Your task to perform on an android device: Open CNN.com Image 0: 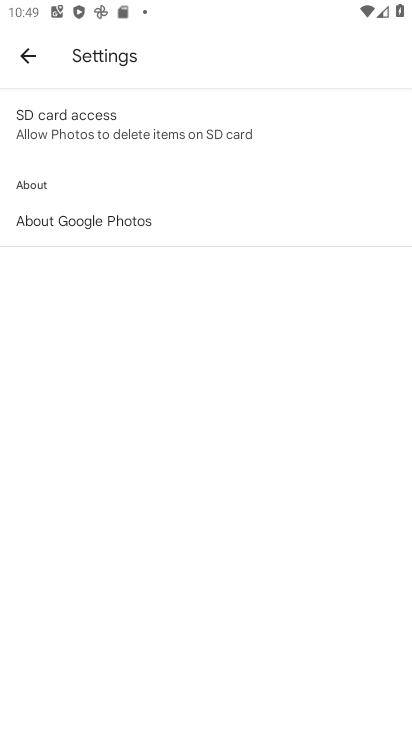
Step 0: press home button
Your task to perform on an android device: Open CNN.com Image 1: 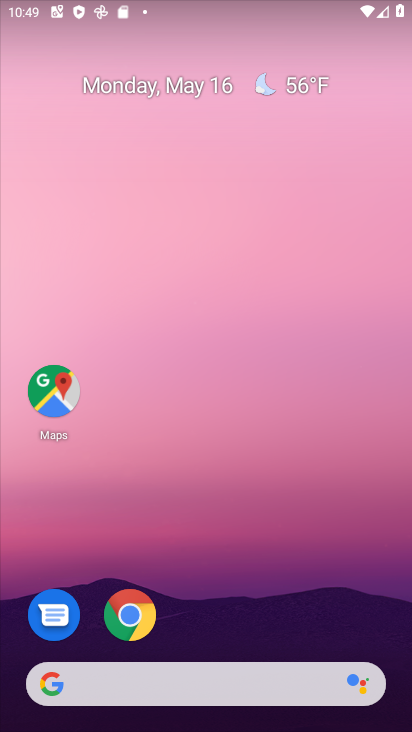
Step 1: drag from (235, 709) to (221, 339)
Your task to perform on an android device: Open CNN.com Image 2: 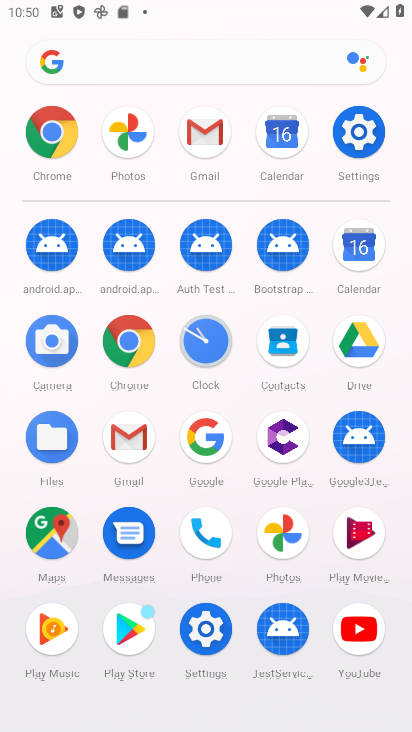
Step 2: click (68, 112)
Your task to perform on an android device: Open CNN.com Image 3: 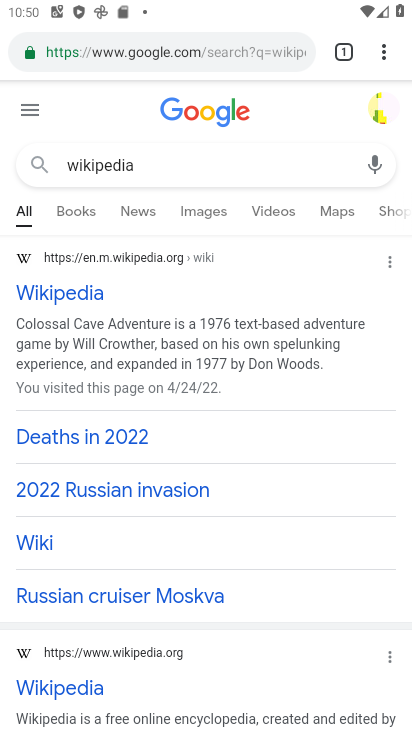
Step 3: click (220, 56)
Your task to perform on an android device: Open CNN.com Image 4: 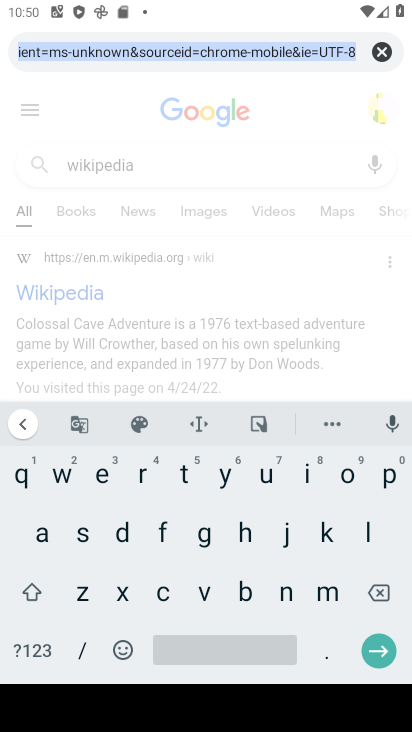
Step 4: click (382, 47)
Your task to perform on an android device: Open CNN.com Image 5: 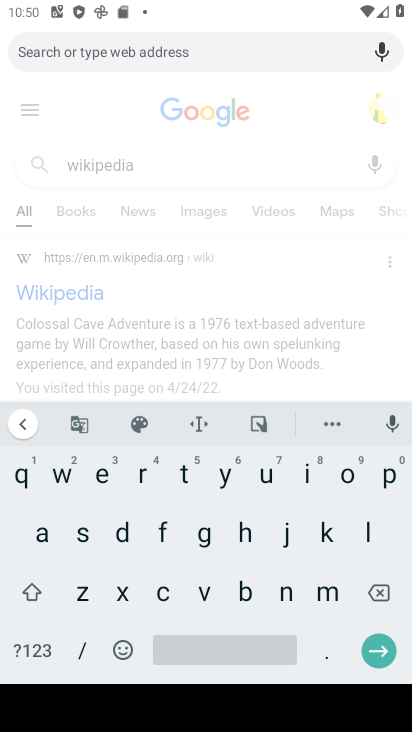
Step 5: click (161, 589)
Your task to perform on an android device: Open CNN.com Image 6: 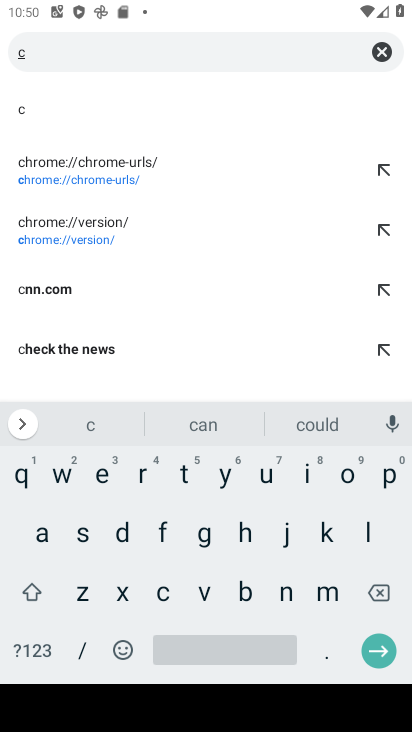
Step 6: click (289, 600)
Your task to perform on an android device: Open CNN.com Image 7: 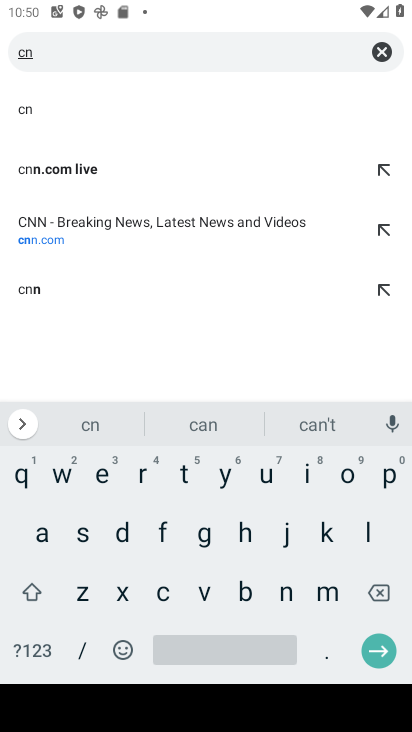
Step 7: click (289, 600)
Your task to perform on an android device: Open CNN.com Image 8: 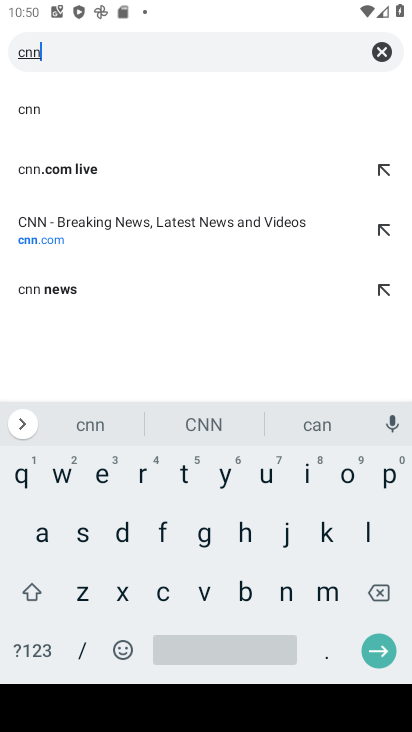
Step 8: click (319, 654)
Your task to perform on an android device: Open CNN.com Image 9: 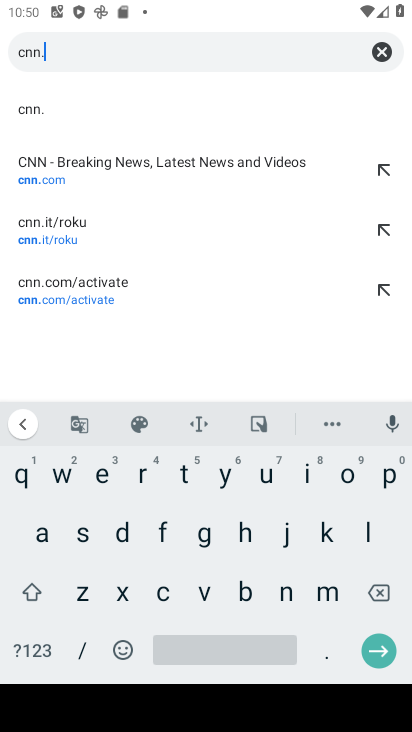
Step 9: click (163, 600)
Your task to perform on an android device: Open CNN.com Image 10: 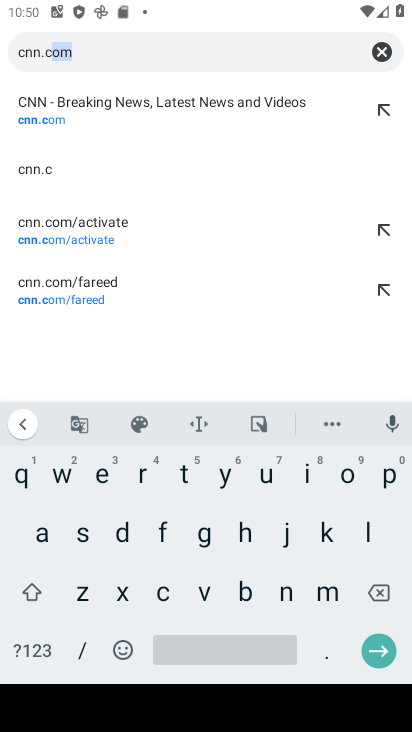
Step 10: click (352, 479)
Your task to perform on an android device: Open CNN.com Image 11: 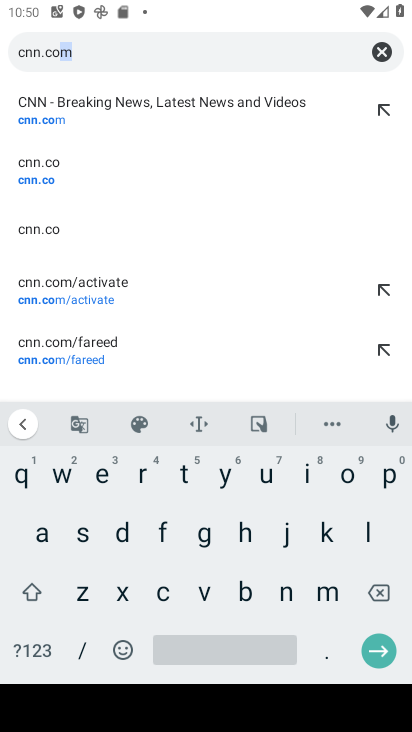
Step 11: click (82, 54)
Your task to perform on an android device: Open CNN.com Image 12: 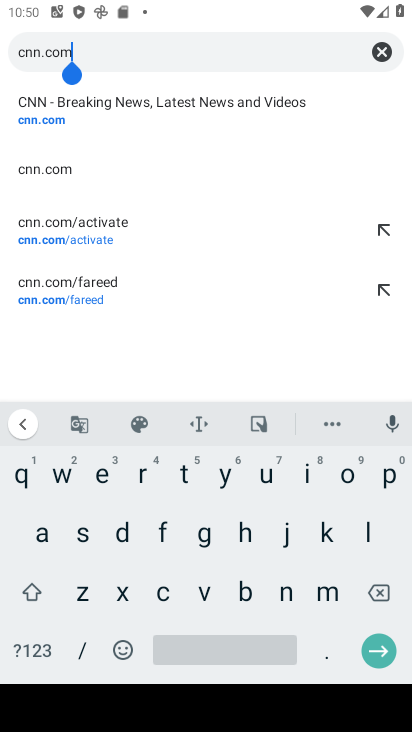
Step 12: click (387, 648)
Your task to perform on an android device: Open CNN.com Image 13: 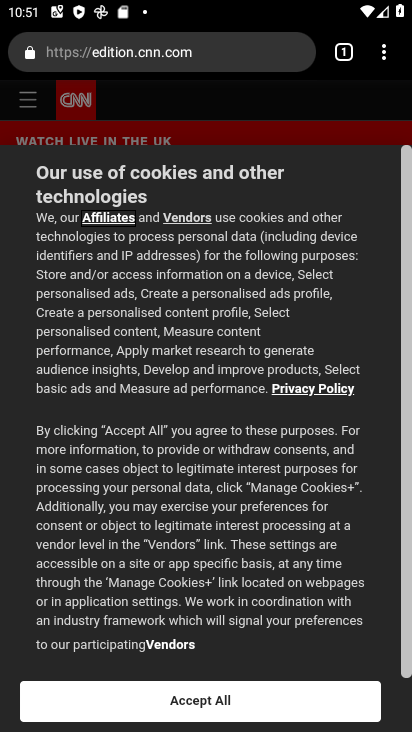
Step 13: drag from (332, 569) to (262, 372)
Your task to perform on an android device: Open CNN.com Image 14: 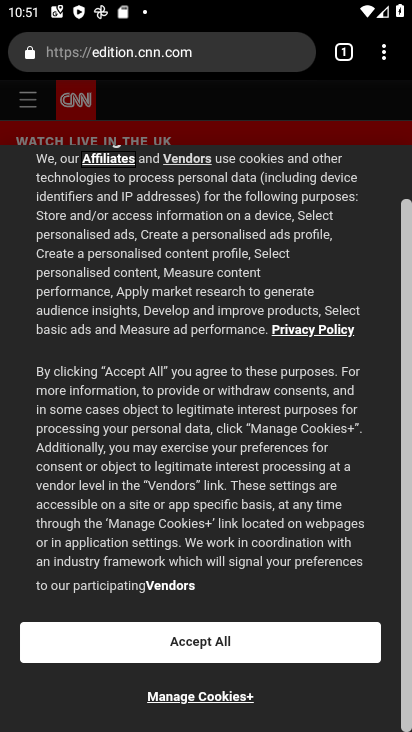
Step 14: click (218, 641)
Your task to perform on an android device: Open CNN.com Image 15: 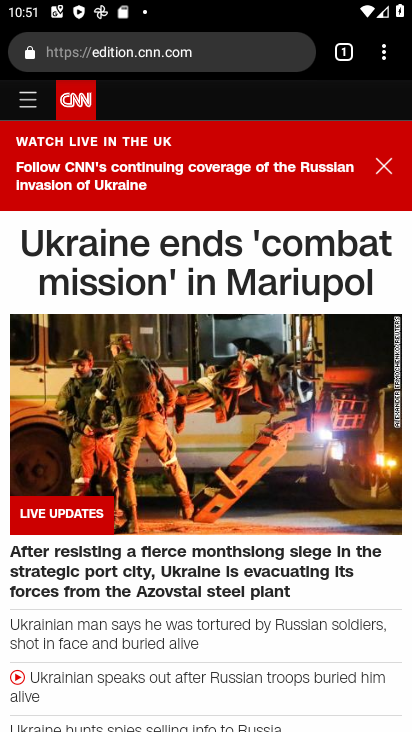
Step 15: task complete